Your task to perform on an android device: Check the weather Image 0: 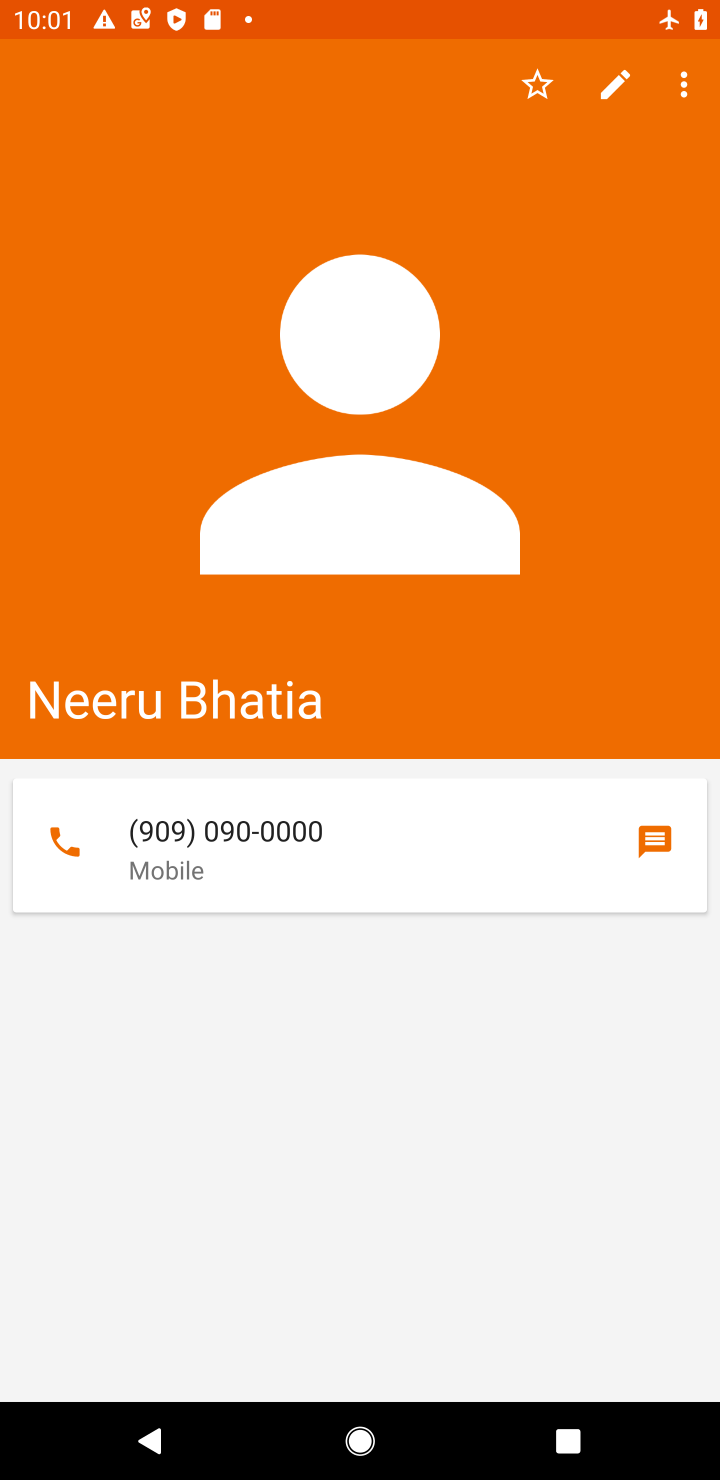
Step 0: press home button
Your task to perform on an android device: Check the weather Image 1: 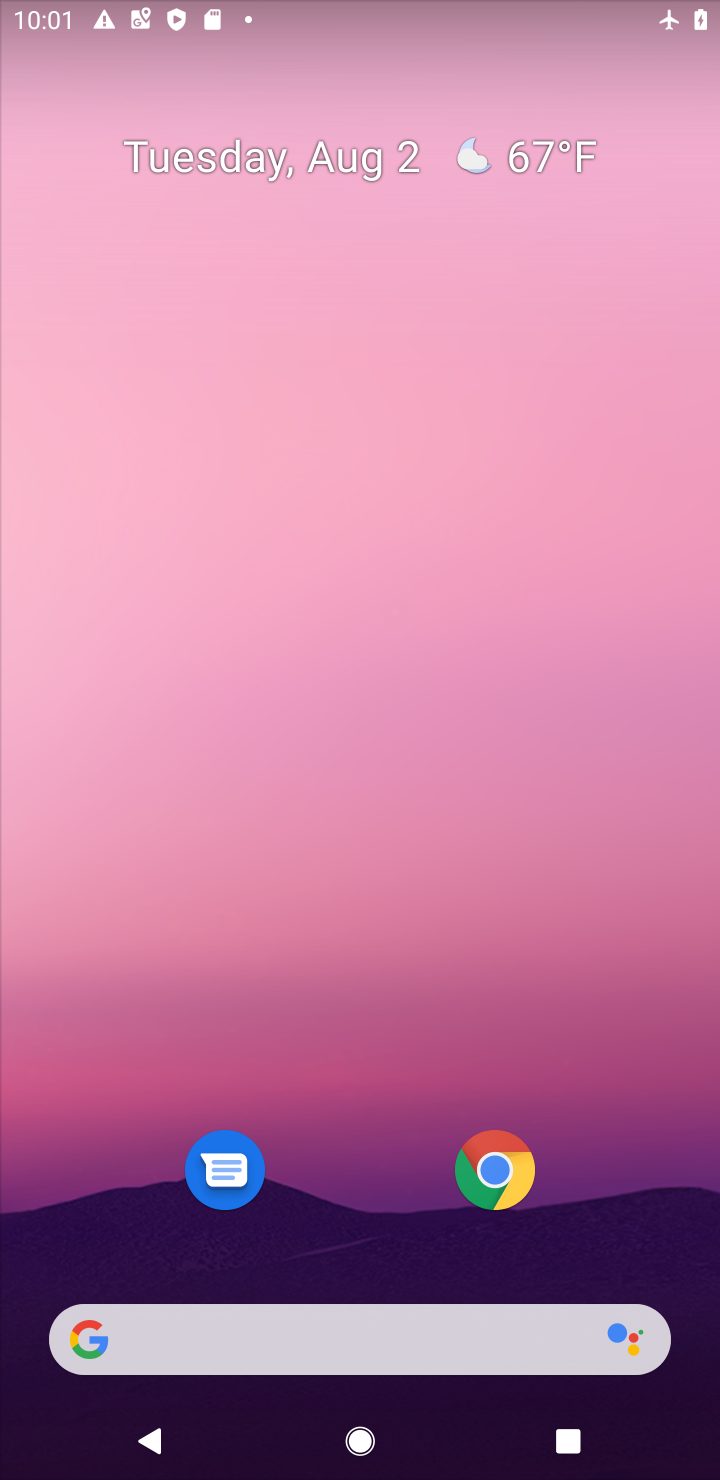
Step 1: click (243, 1331)
Your task to perform on an android device: Check the weather Image 2: 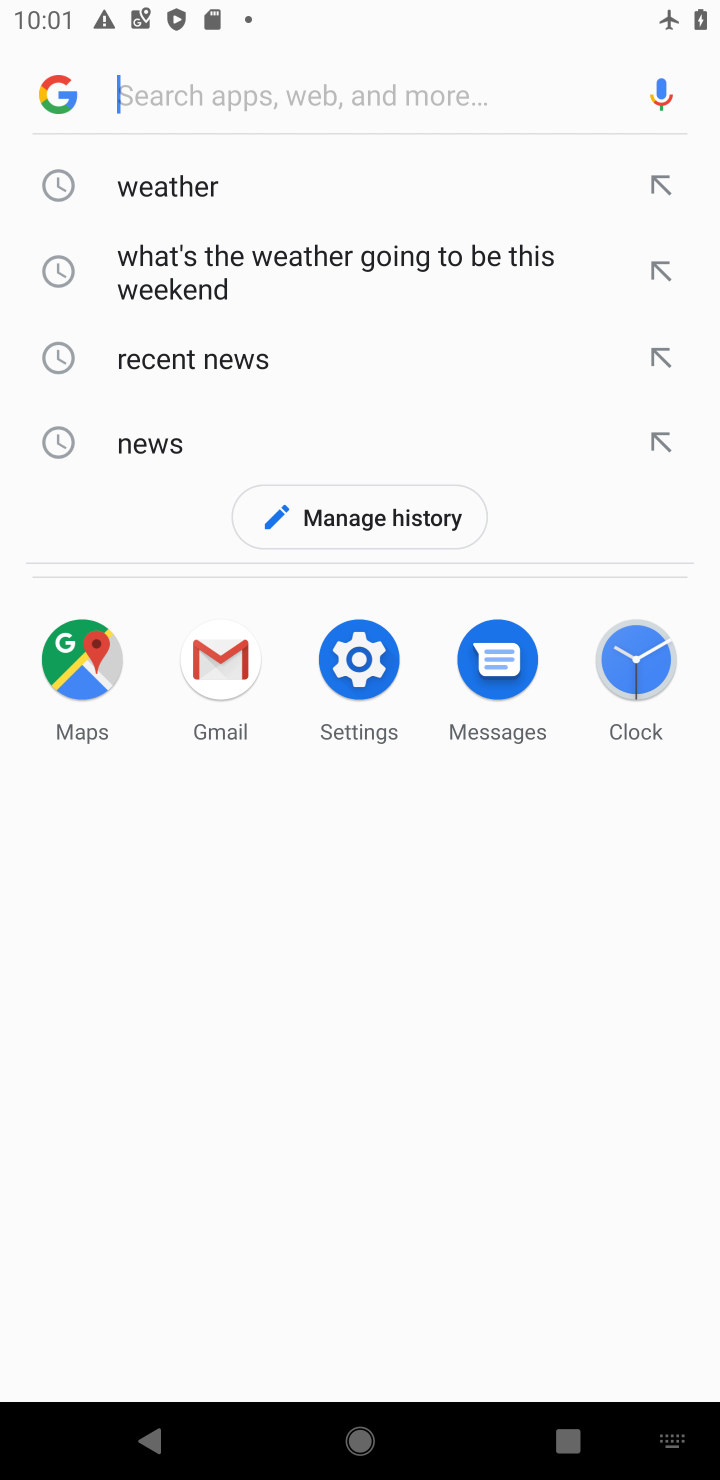
Step 2: click (190, 186)
Your task to perform on an android device: Check the weather Image 3: 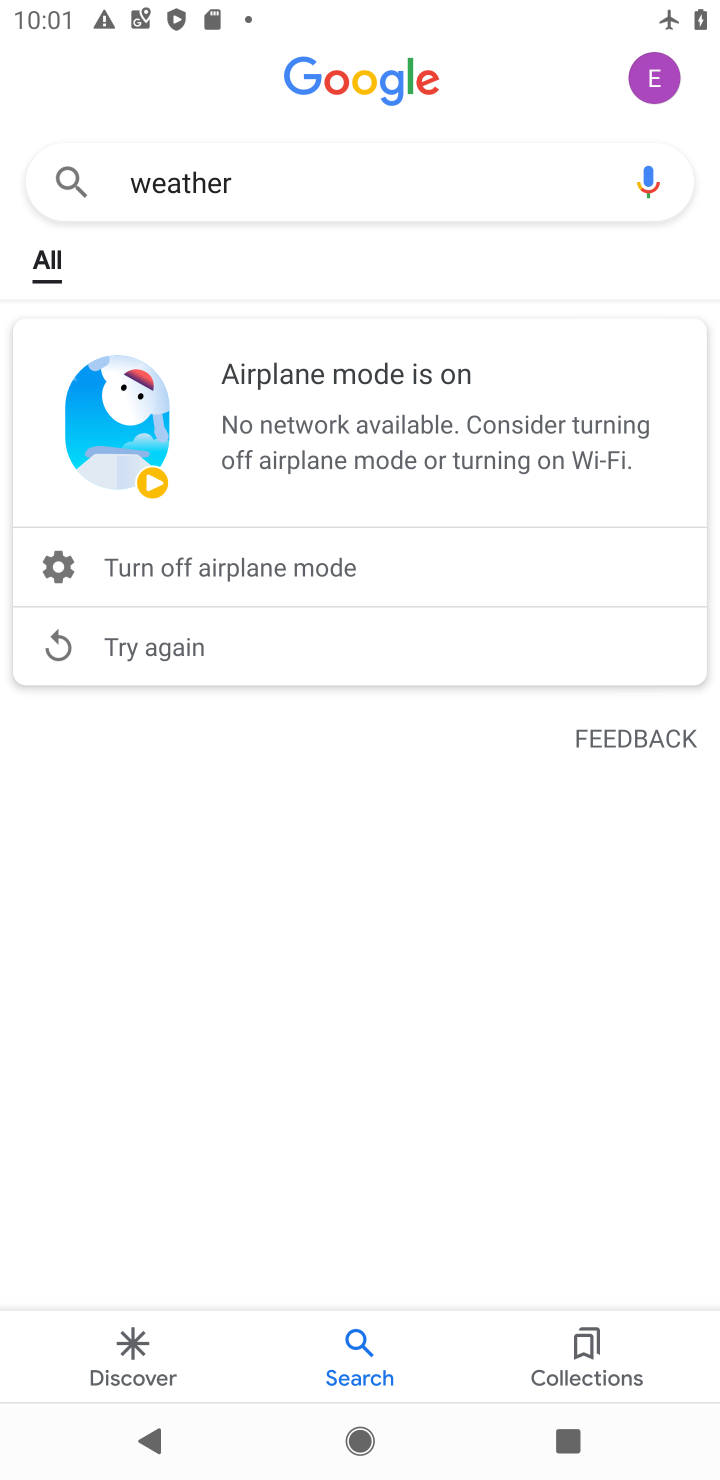
Step 3: press back button
Your task to perform on an android device: Check the weather Image 4: 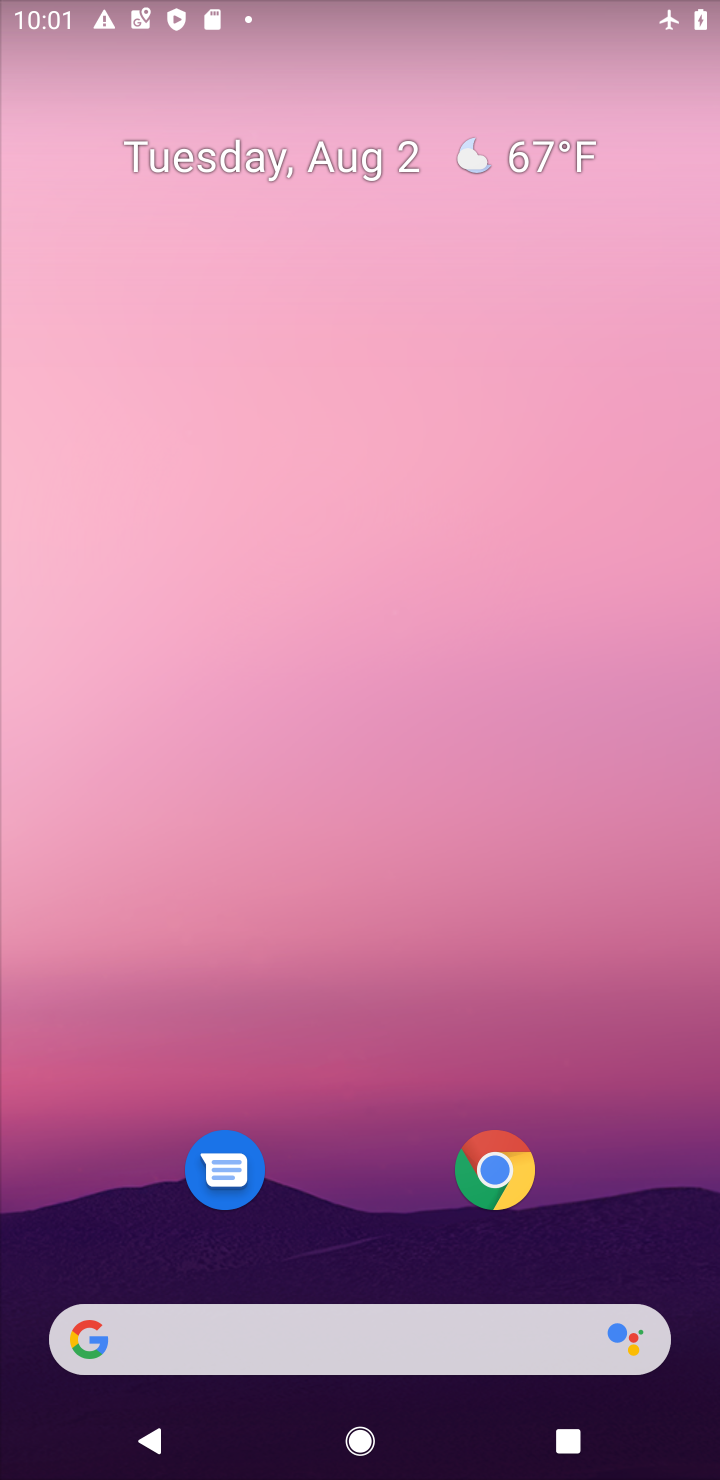
Step 4: drag from (315, 1236) to (487, 84)
Your task to perform on an android device: Check the weather Image 5: 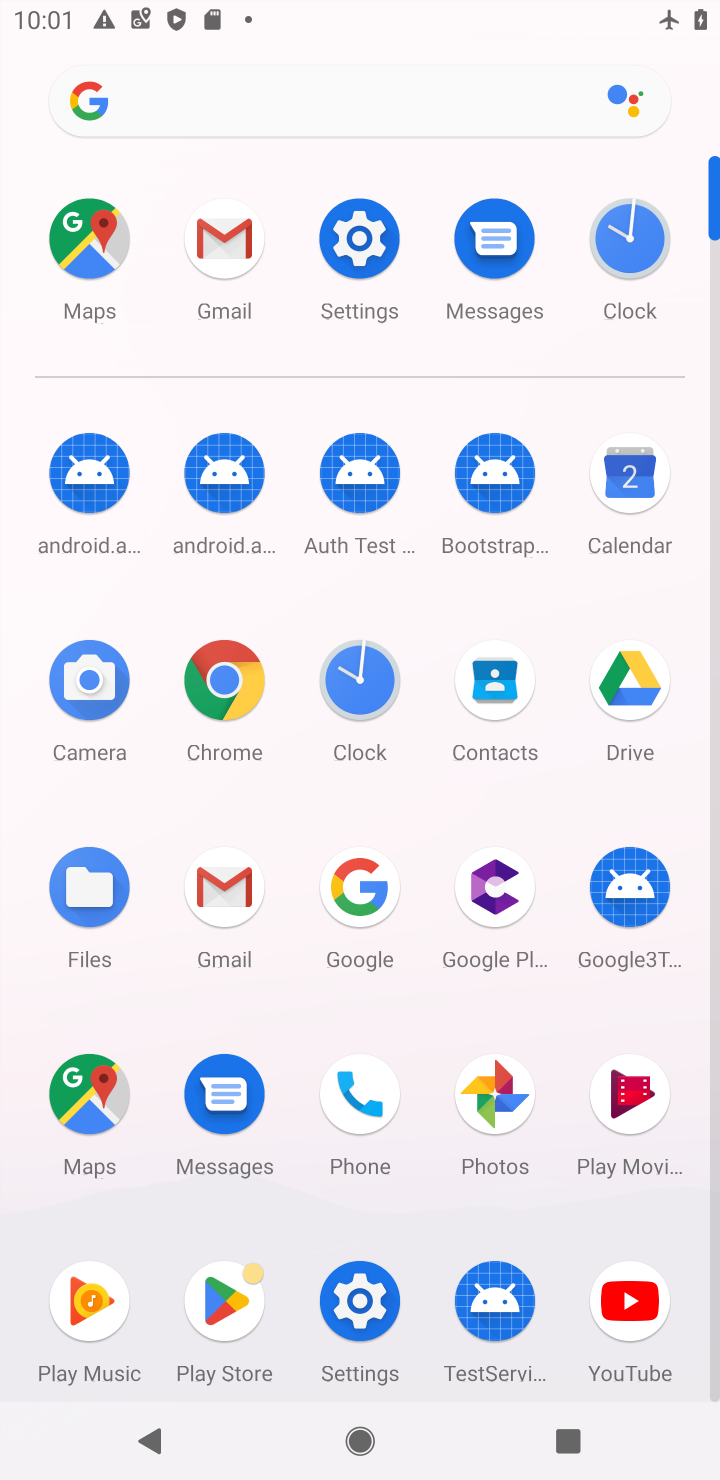
Step 5: click (355, 220)
Your task to perform on an android device: Check the weather Image 6: 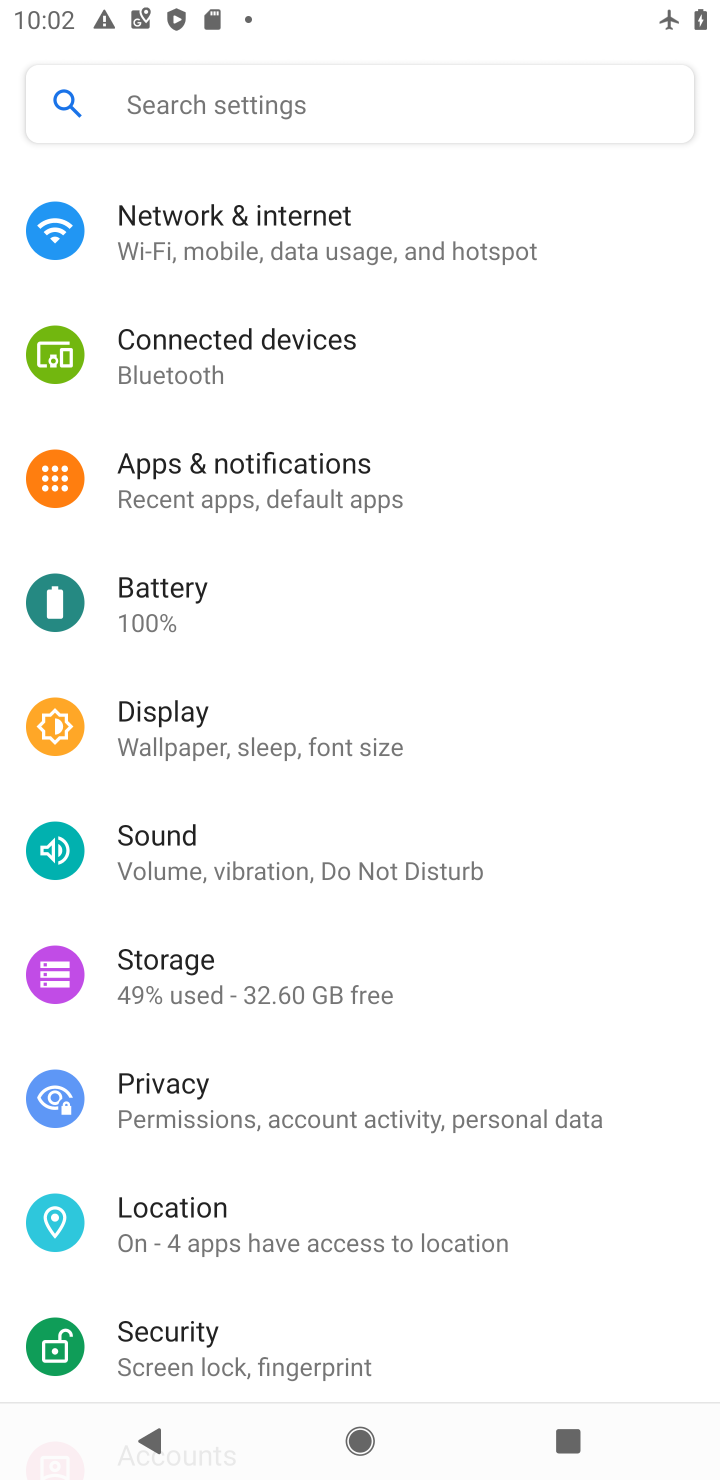
Step 6: click (268, 255)
Your task to perform on an android device: Check the weather Image 7: 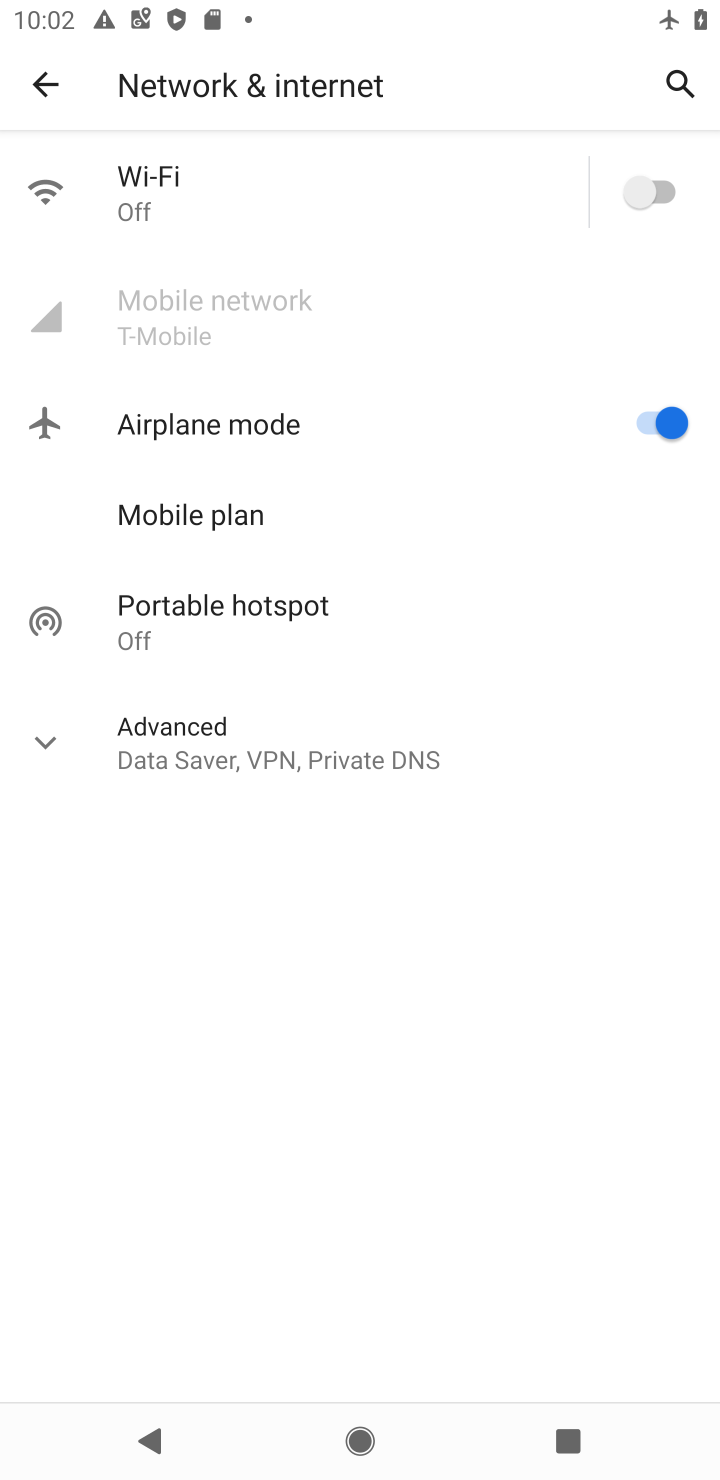
Step 7: click (627, 435)
Your task to perform on an android device: Check the weather Image 8: 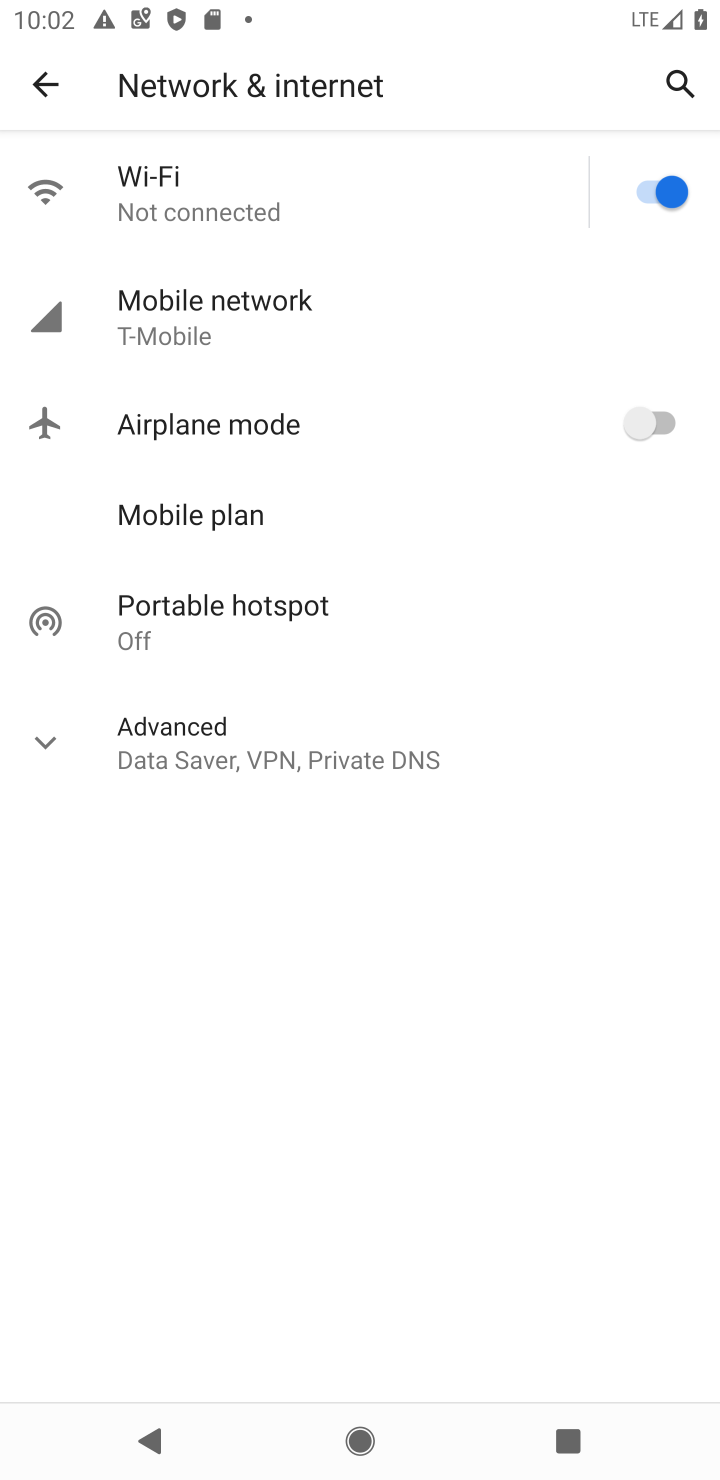
Step 8: click (59, 64)
Your task to perform on an android device: Check the weather Image 9: 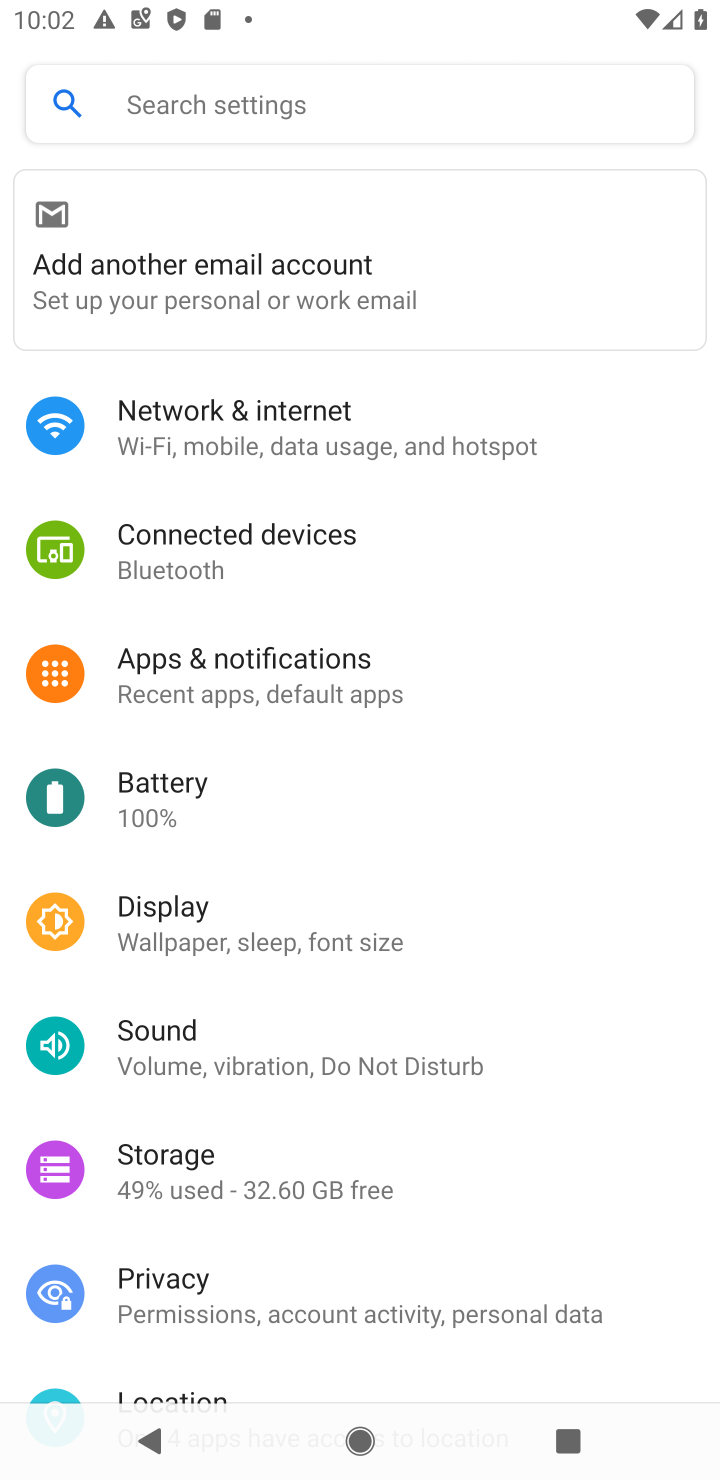
Step 9: press back button
Your task to perform on an android device: Check the weather Image 10: 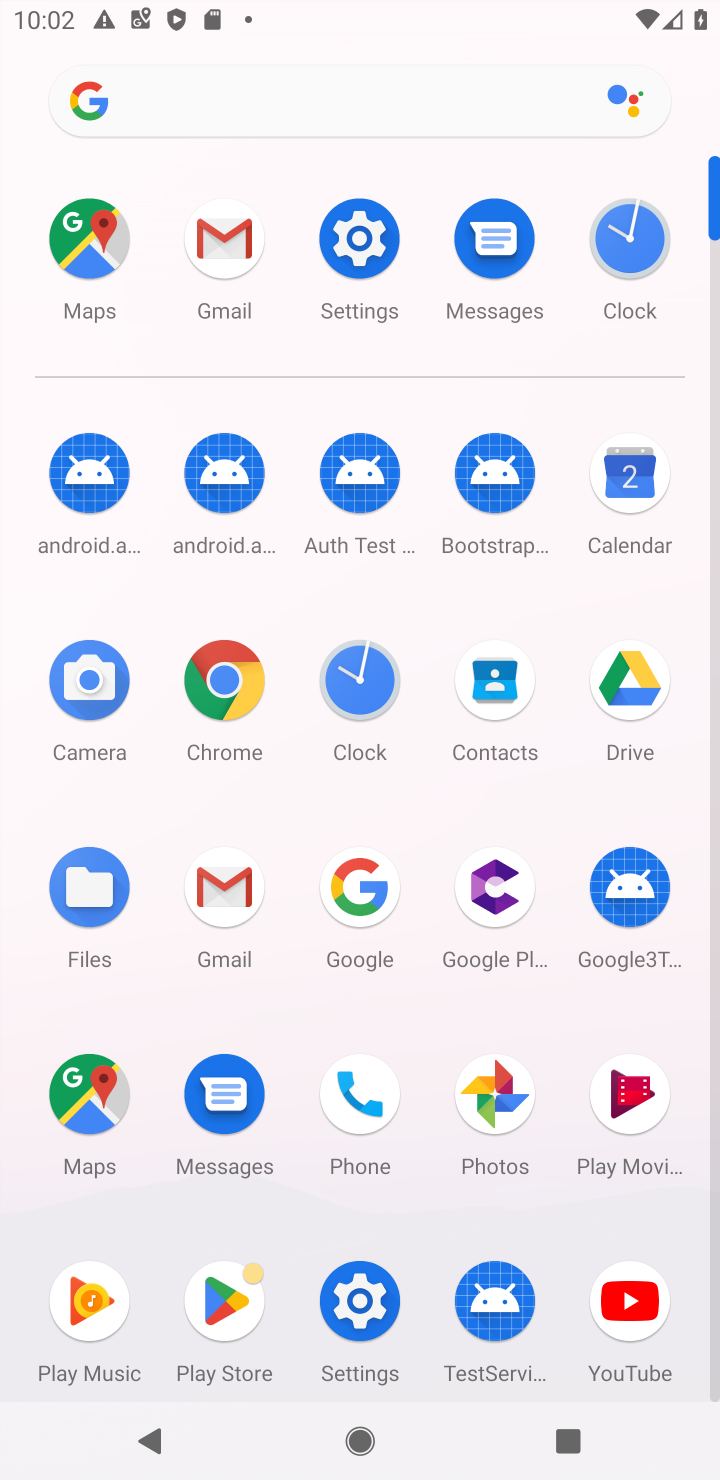
Step 10: click (352, 953)
Your task to perform on an android device: Check the weather Image 11: 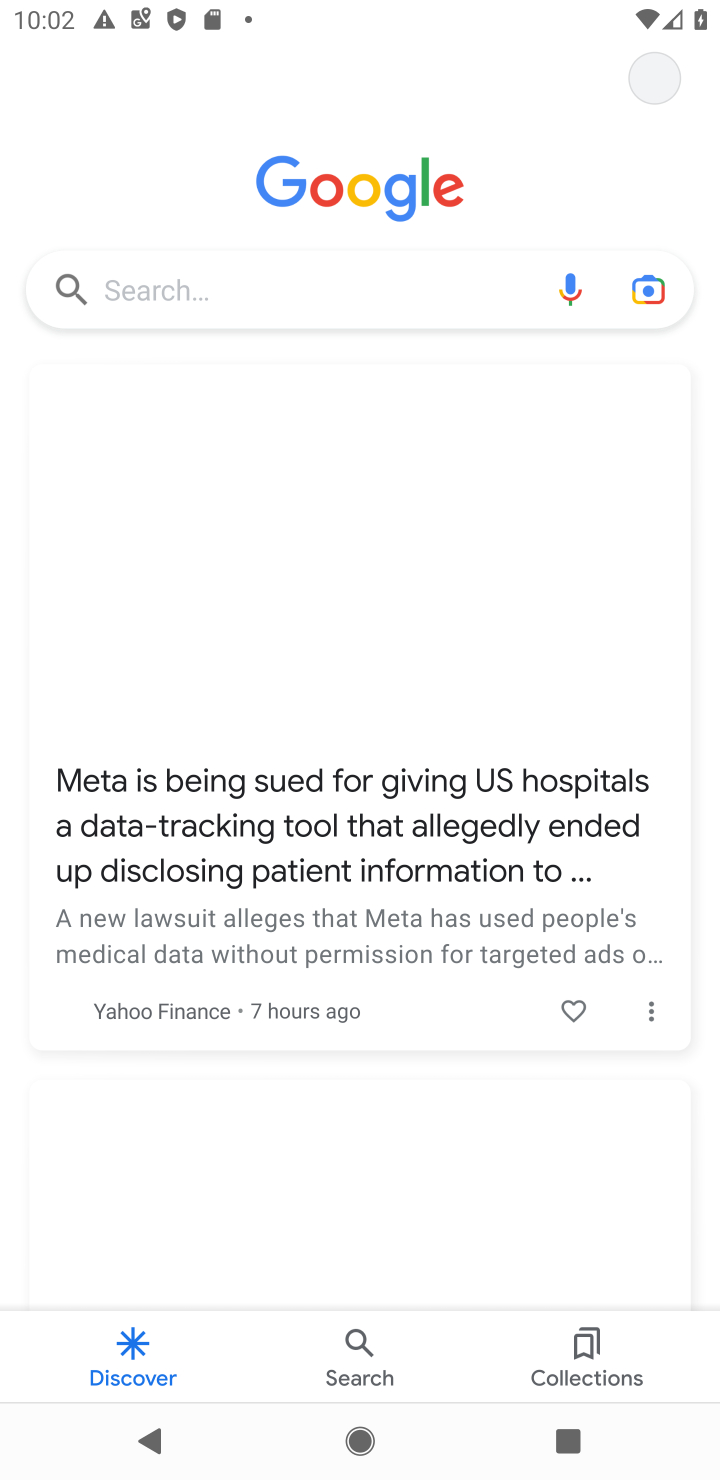
Step 11: drag from (193, 596) to (189, 297)
Your task to perform on an android device: Check the weather Image 12: 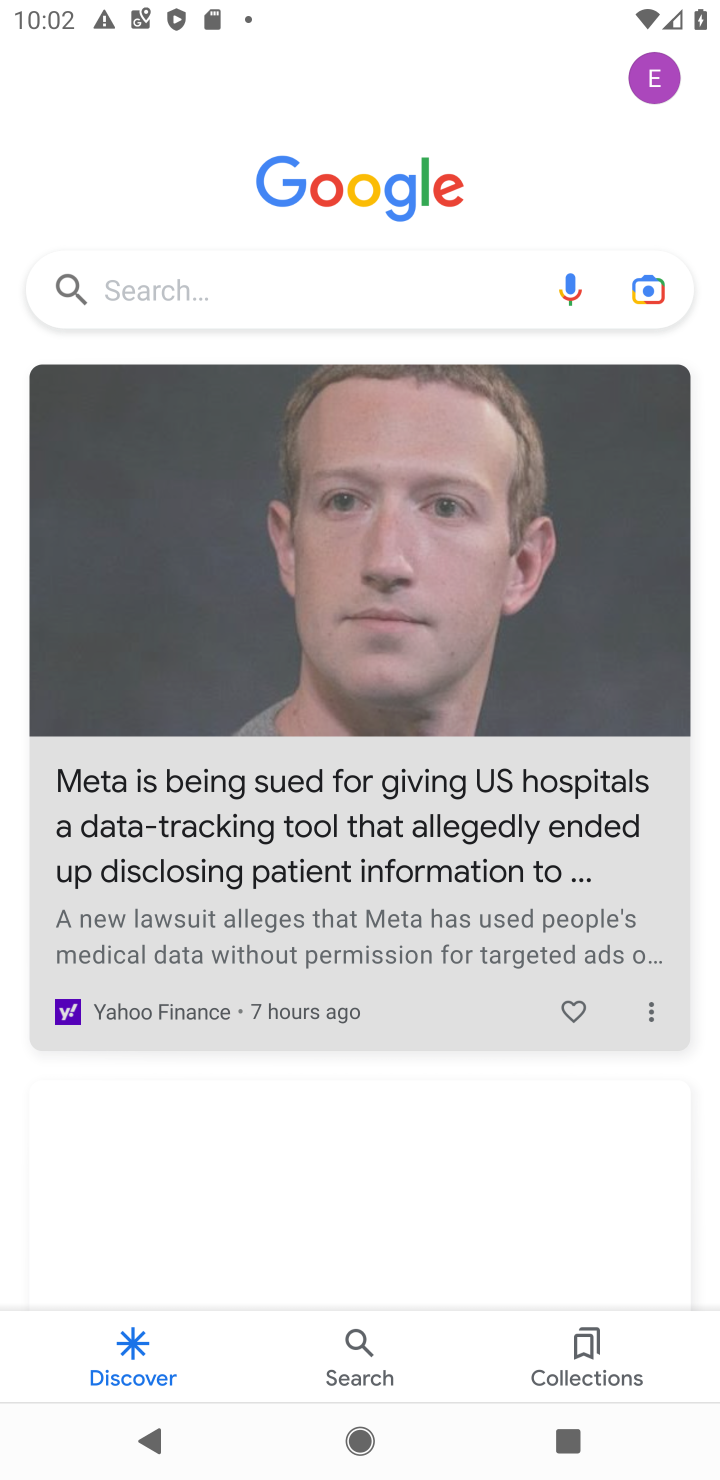
Step 12: click (189, 297)
Your task to perform on an android device: Check the weather Image 13: 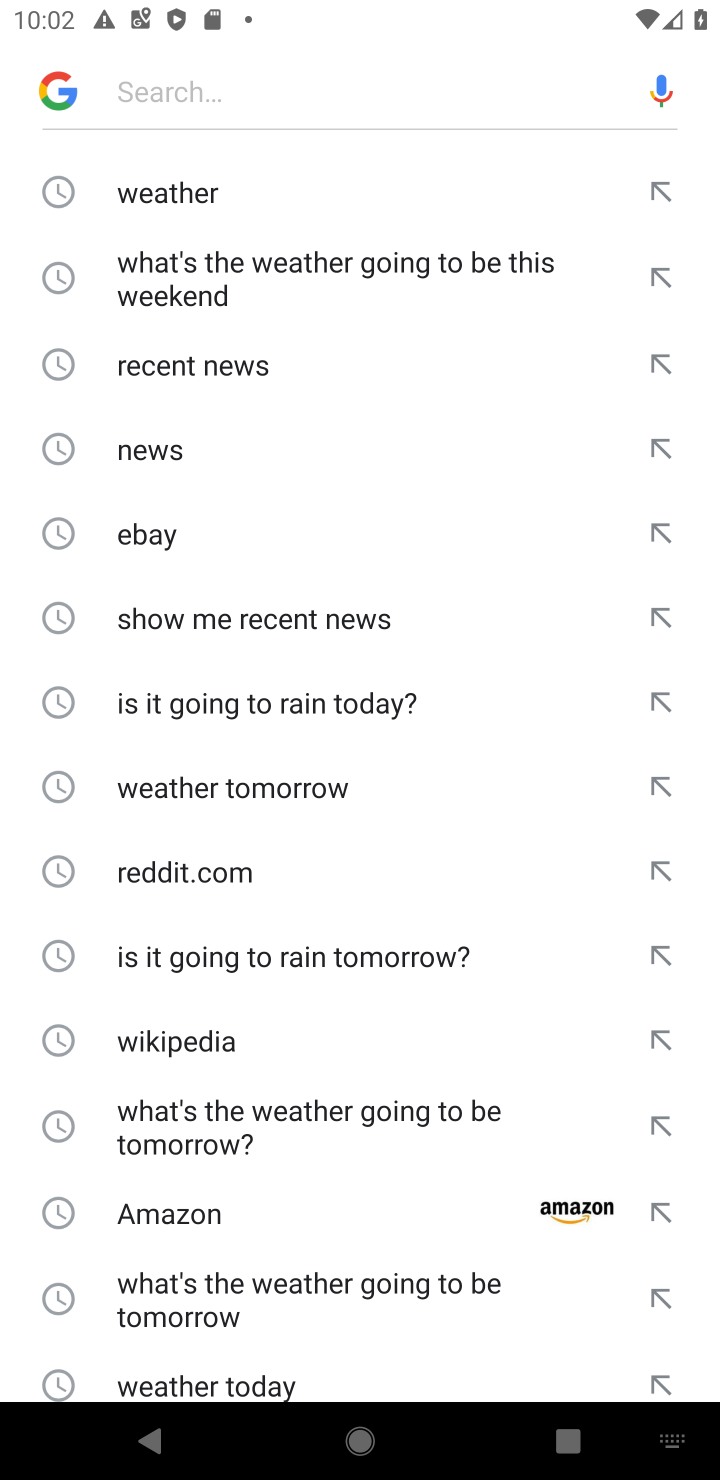
Step 13: click (189, 192)
Your task to perform on an android device: Check the weather Image 14: 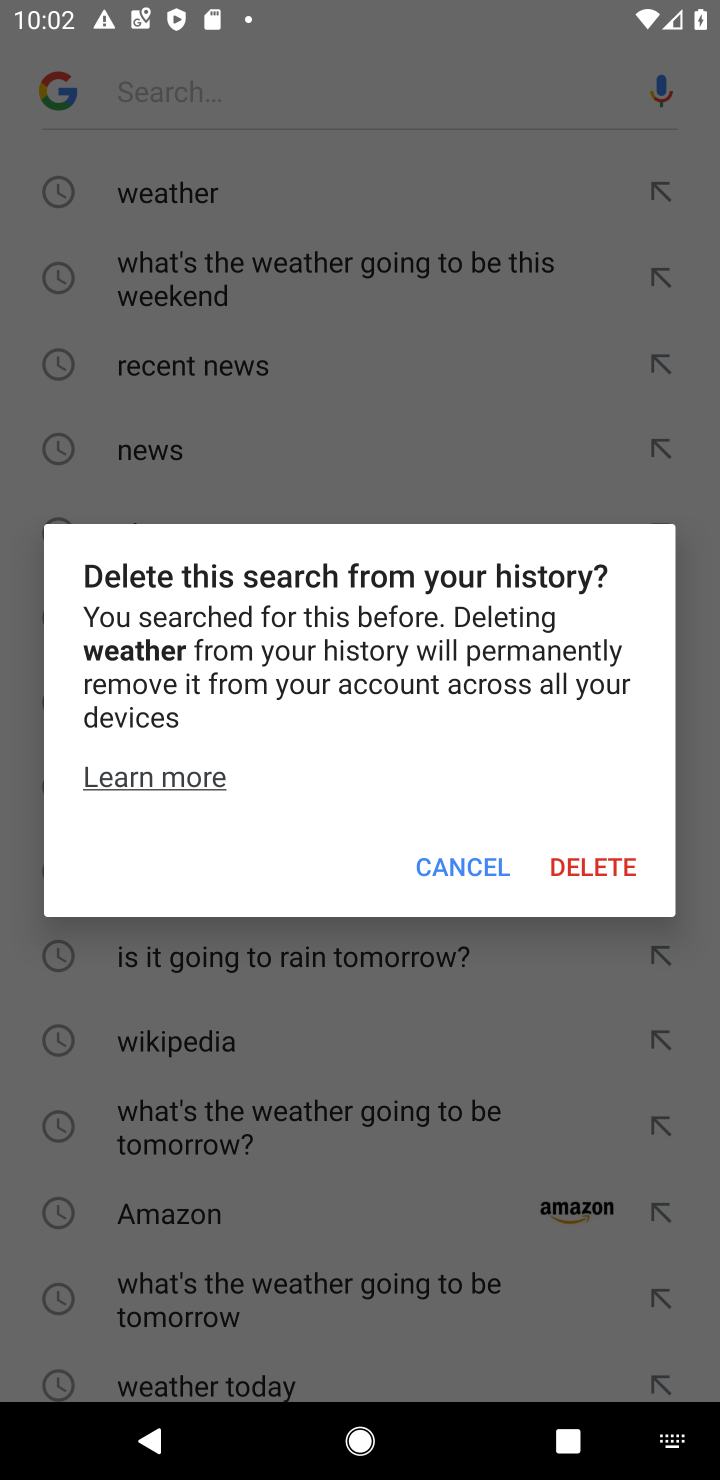
Step 14: click (503, 863)
Your task to perform on an android device: Check the weather Image 15: 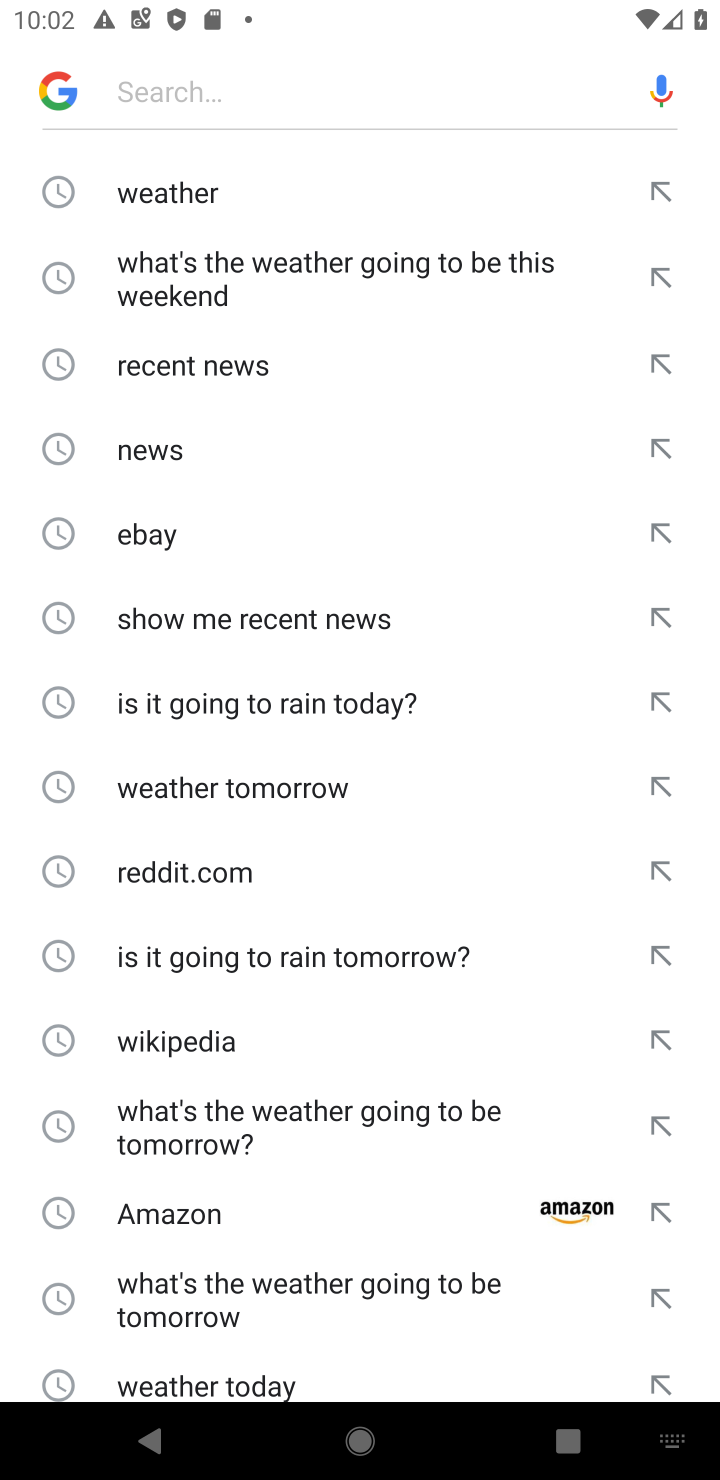
Step 15: click (142, 180)
Your task to perform on an android device: Check the weather Image 16: 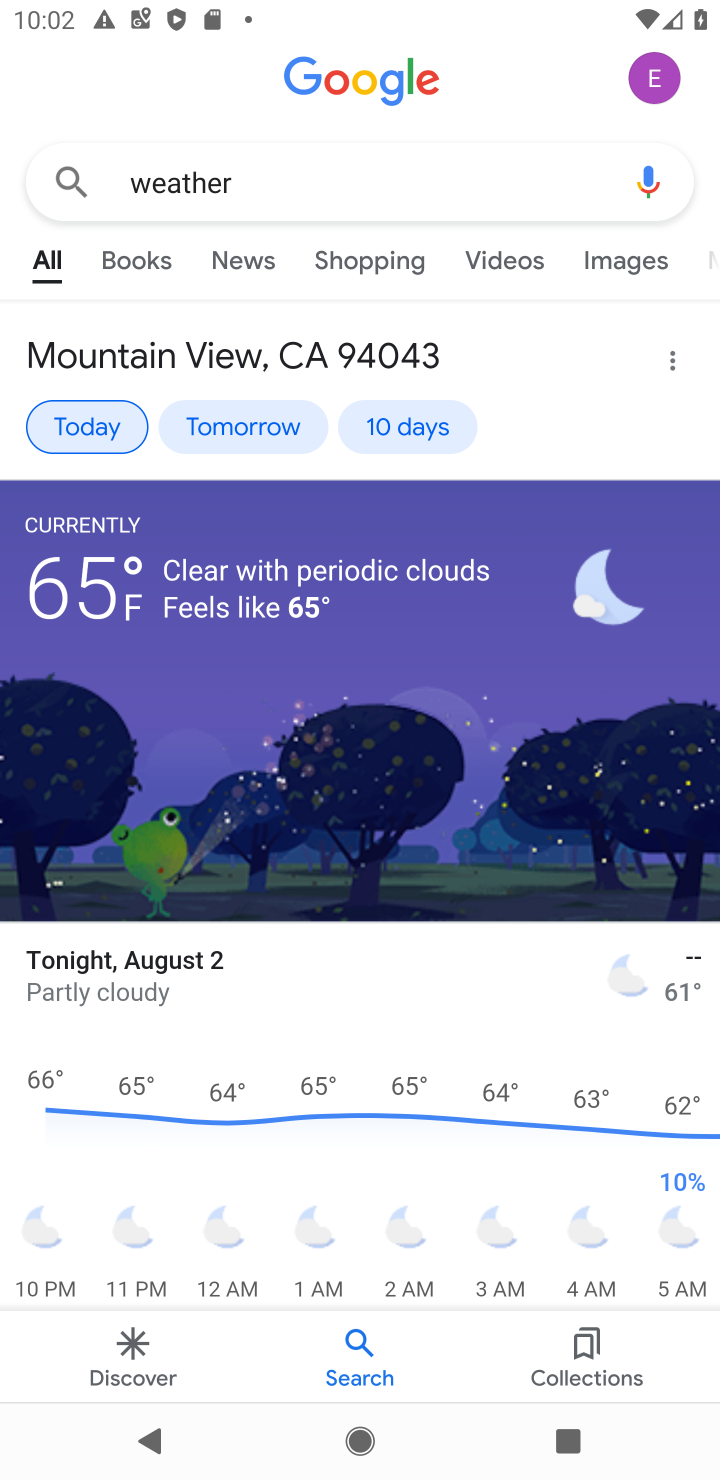
Step 16: task complete